Your task to perform on an android device: Go to Wikipedia Image 0: 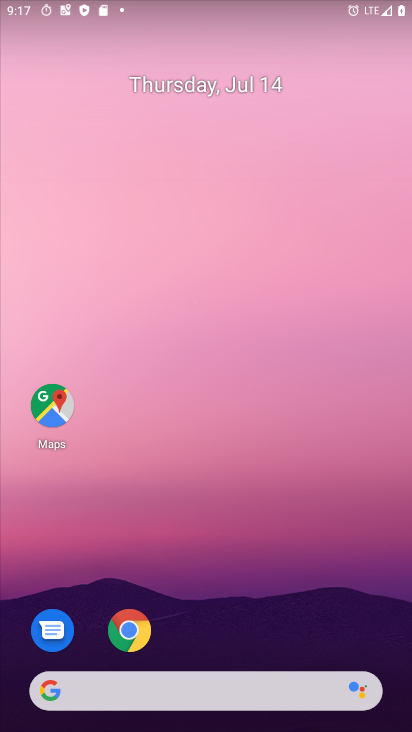
Step 0: drag from (227, 722) to (187, 263)
Your task to perform on an android device: Go to Wikipedia Image 1: 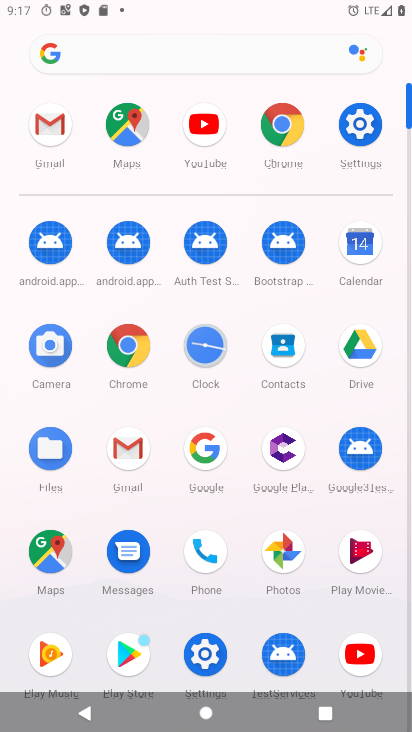
Step 1: click (282, 124)
Your task to perform on an android device: Go to Wikipedia Image 2: 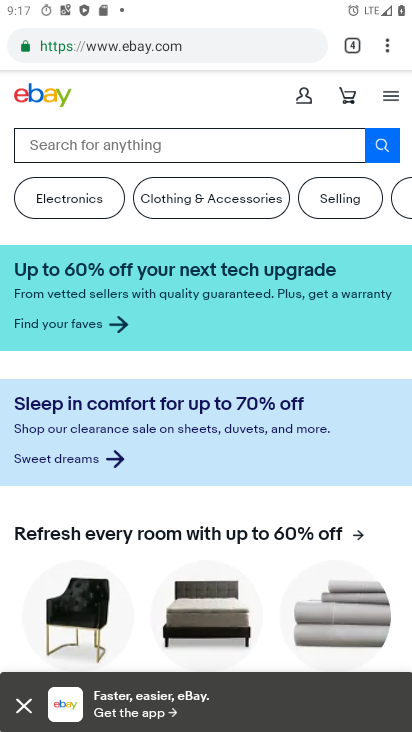
Step 2: click (386, 44)
Your task to perform on an android device: Go to Wikipedia Image 3: 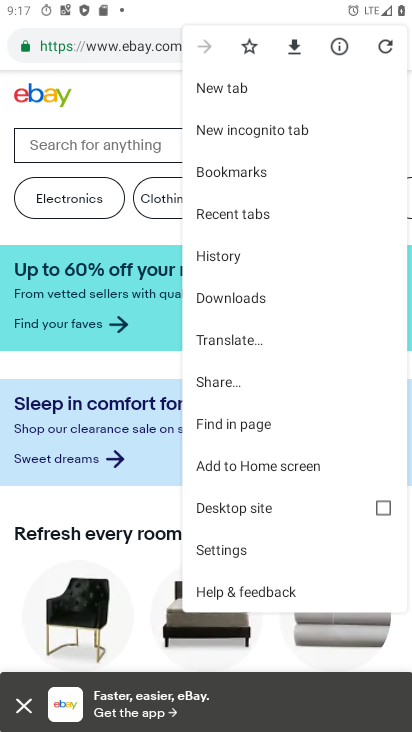
Step 3: click (219, 83)
Your task to perform on an android device: Go to Wikipedia Image 4: 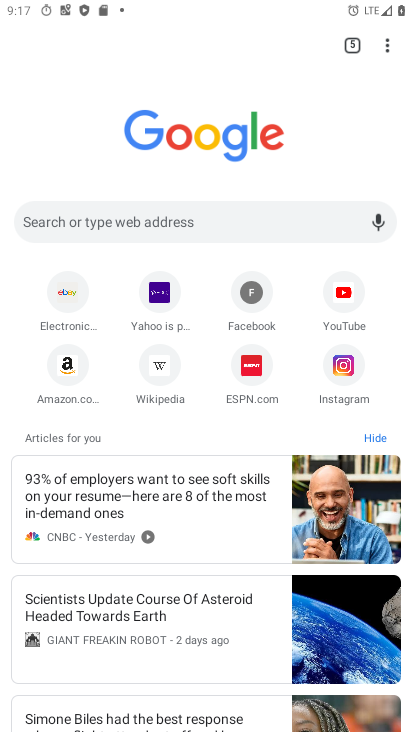
Step 4: click (154, 362)
Your task to perform on an android device: Go to Wikipedia Image 5: 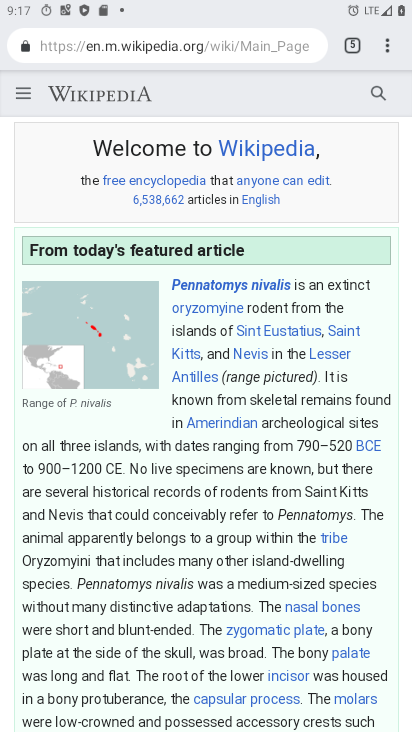
Step 5: task complete